Your task to perform on an android device: move an email to a new category in the gmail app Image 0: 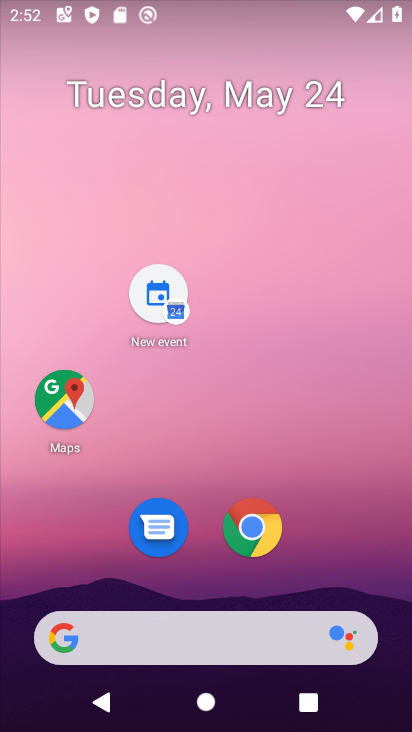
Step 0: drag from (281, 529) to (276, 280)
Your task to perform on an android device: move an email to a new category in the gmail app Image 1: 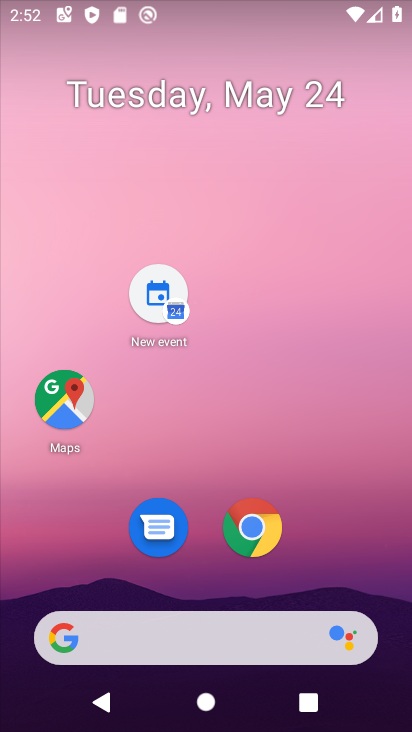
Step 1: drag from (360, 618) to (264, 5)
Your task to perform on an android device: move an email to a new category in the gmail app Image 2: 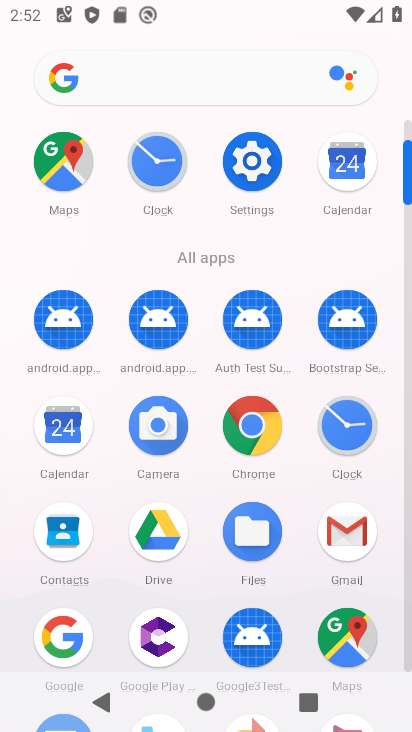
Step 2: click (349, 514)
Your task to perform on an android device: move an email to a new category in the gmail app Image 3: 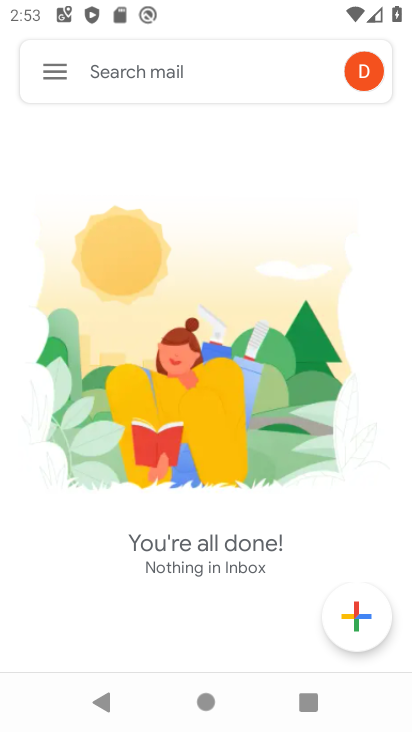
Step 3: click (58, 65)
Your task to perform on an android device: move an email to a new category in the gmail app Image 4: 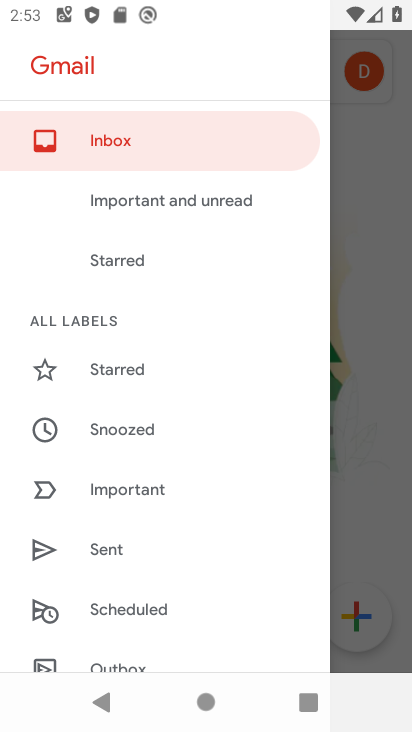
Step 4: click (126, 365)
Your task to perform on an android device: move an email to a new category in the gmail app Image 5: 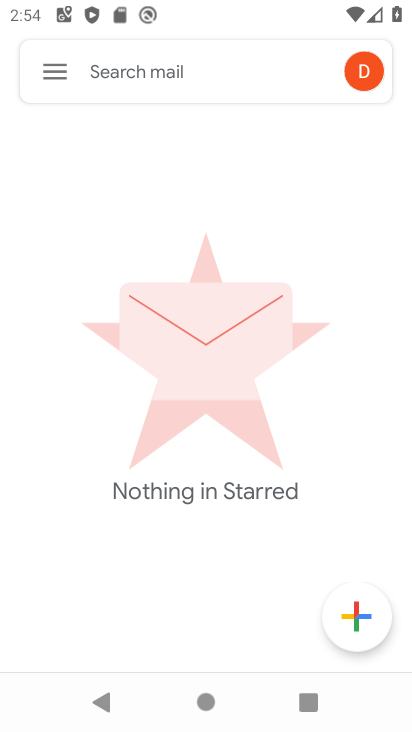
Step 5: click (53, 60)
Your task to perform on an android device: move an email to a new category in the gmail app Image 6: 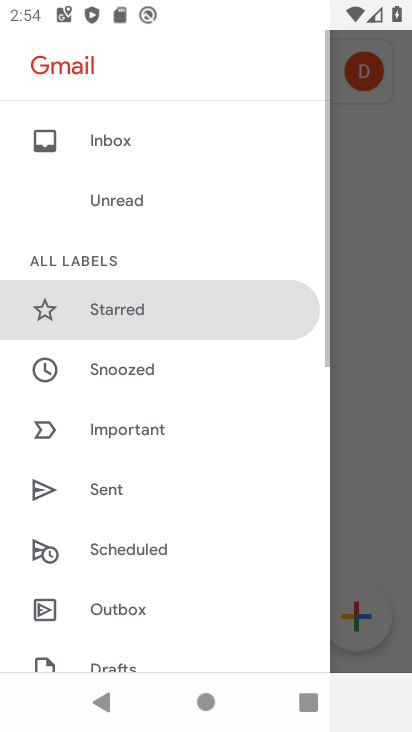
Step 6: click (136, 293)
Your task to perform on an android device: move an email to a new category in the gmail app Image 7: 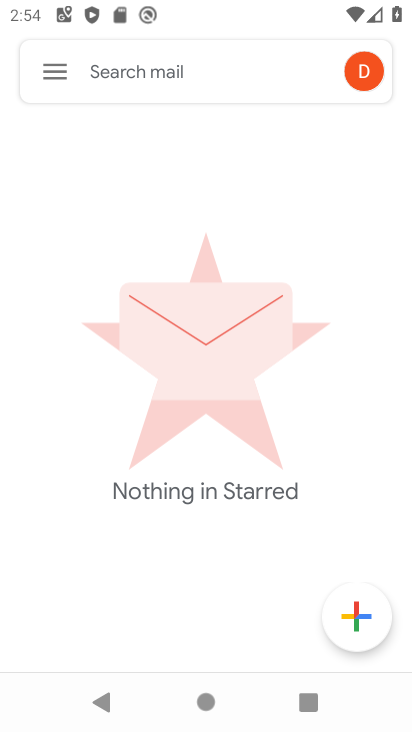
Step 7: task complete